Your task to perform on an android device: toggle pop-ups in chrome Image 0: 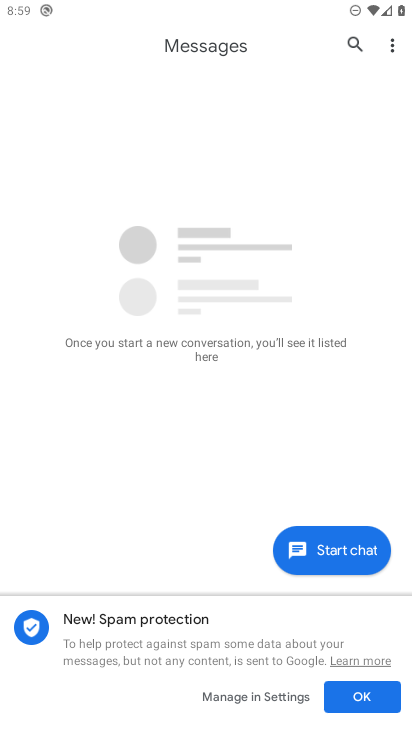
Step 0: press home button
Your task to perform on an android device: toggle pop-ups in chrome Image 1: 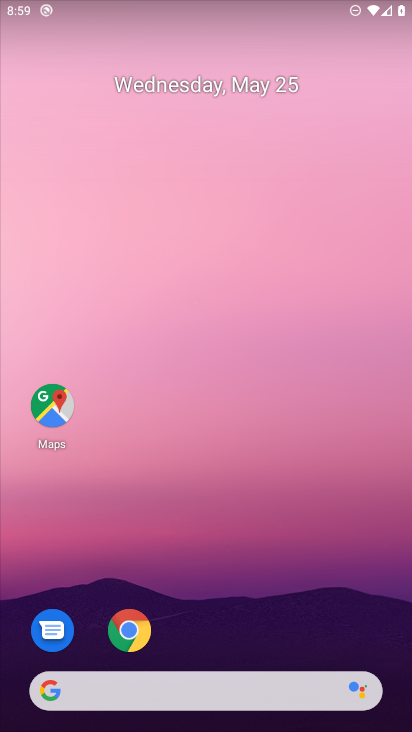
Step 1: click (139, 631)
Your task to perform on an android device: toggle pop-ups in chrome Image 2: 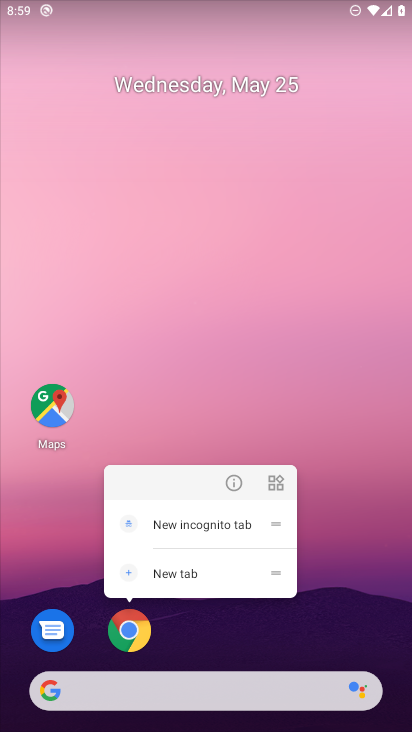
Step 2: click (121, 622)
Your task to perform on an android device: toggle pop-ups in chrome Image 3: 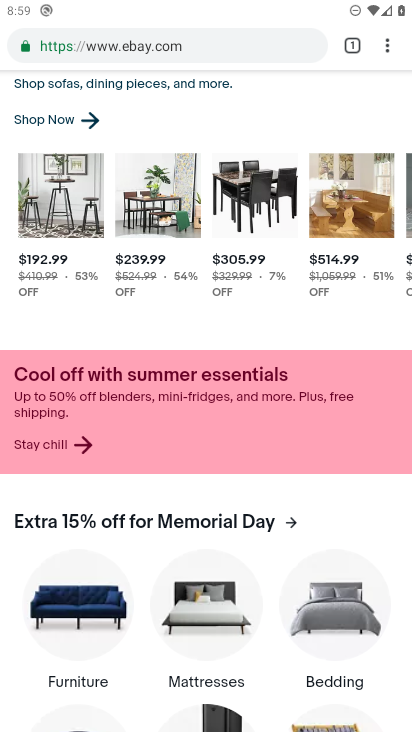
Step 3: click (393, 42)
Your task to perform on an android device: toggle pop-ups in chrome Image 4: 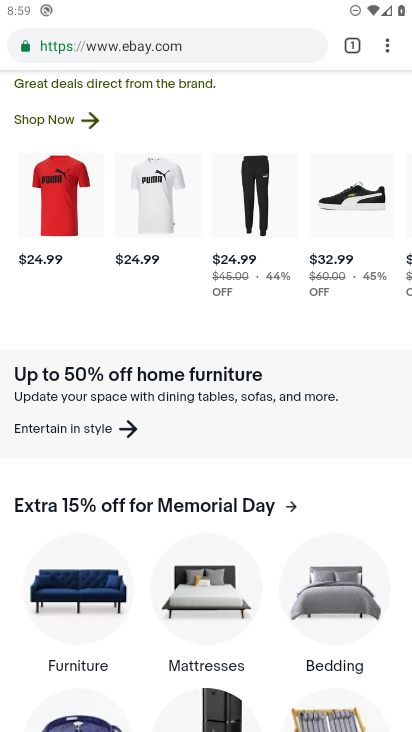
Step 4: click (387, 44)
Your task to perform on an android device: toggle pop-ups in chrome Image 5: 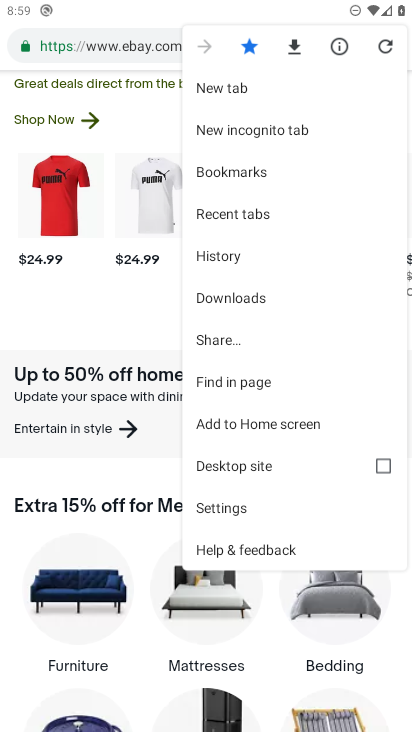
Step 5: click (230, 506)
Your task to perform on an android device: toggle pop-ups in chrome Image 6: 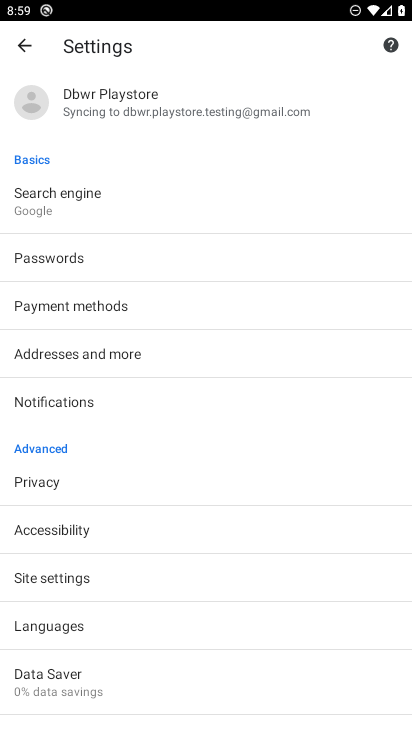
Step 6: click (53, 579)
Your task to perform on an android device: toggle pop-ups in chrome Image 7: 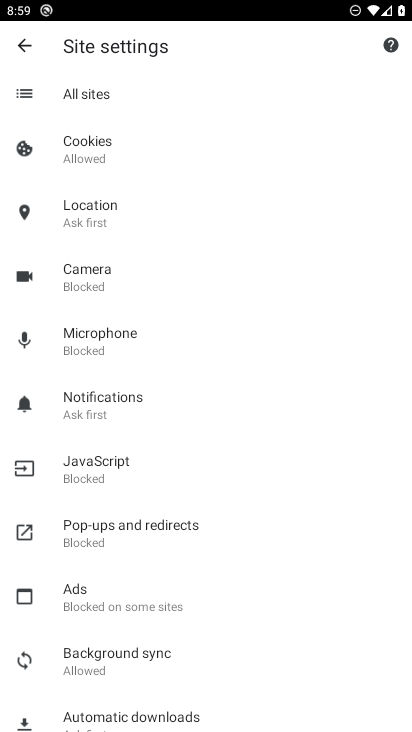
Step 7: click (98, 540)
Your task to perform on an android device: toggle pop-ups in chrome Image 8: 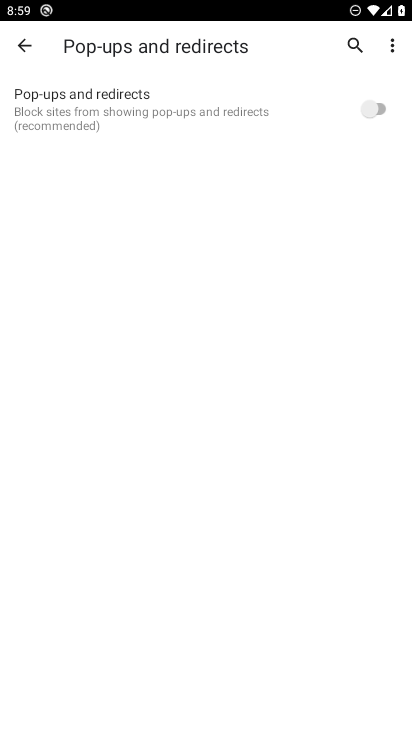
Step 8: click (376, 111)
Your task to perform on an android device: toggle pop-ups in chrome Image 9: 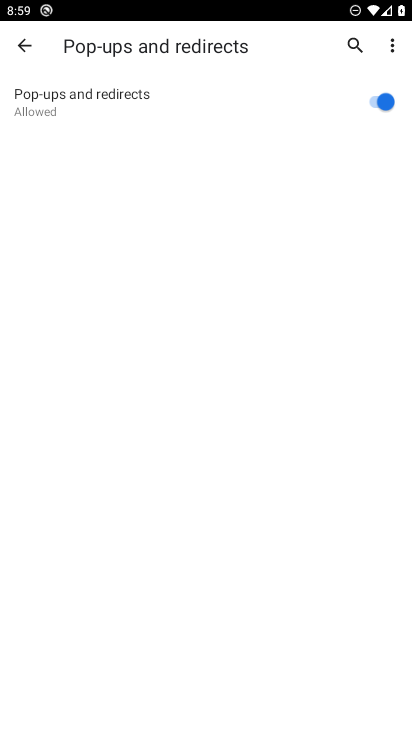
Step 9: task complete